Your task to perform on an android device: Open network settings Image 0: 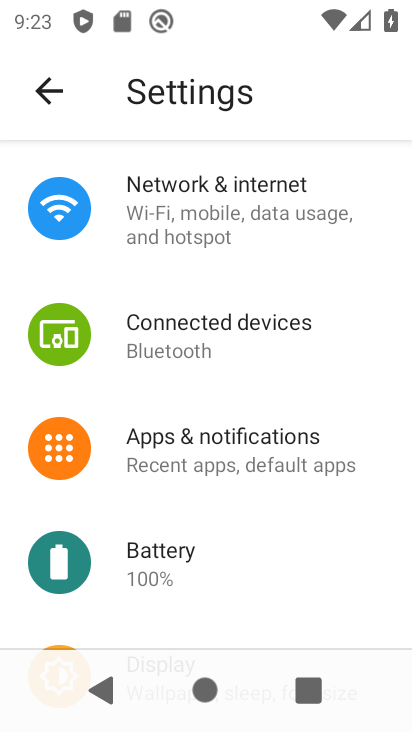
Step 0: click (279, 211)
Your task to perform on an android device: Open network settings Image 1: 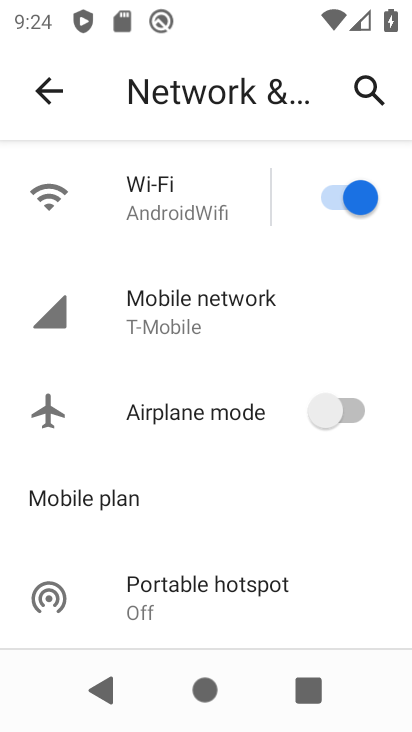
Step 1: click (249, 313)
Your task to perform on an android device: Open network settings Image 2: 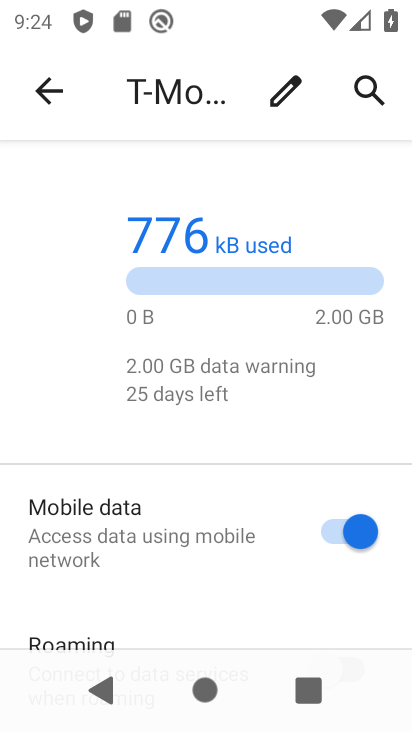
Step 2: task complete